Your task to perform on an android device: open a new tab in the chrome app Image 0: 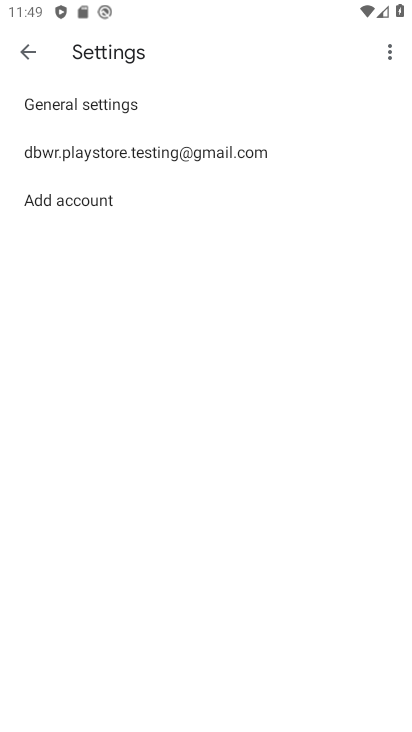
Step 0: press back button
Your task to perform on an android device: open a new tab in the chrome app Image 1: 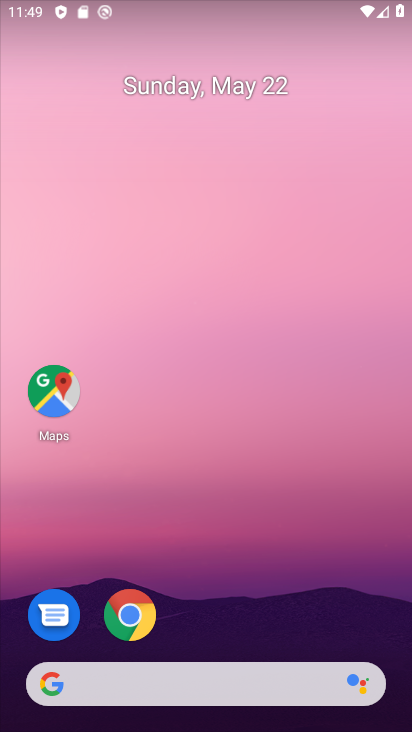
Step 1: click (135, 622)
Your task to perform on an android device: open a new tab in the chrome app Image 2: 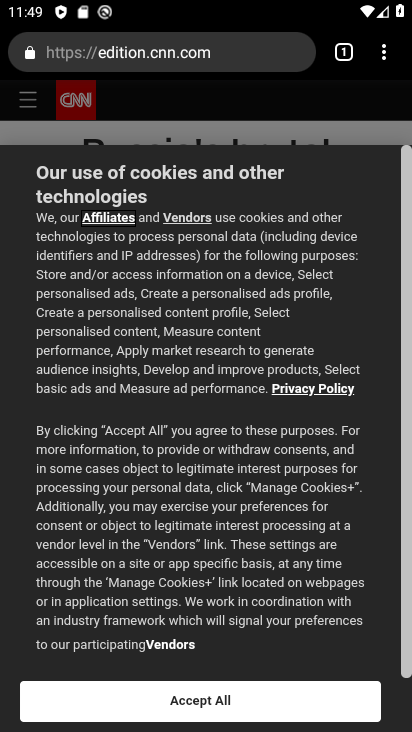
Step 2: task complete